Your task to perform on an android device: toggle notifications settings in the gmail app Image 0: 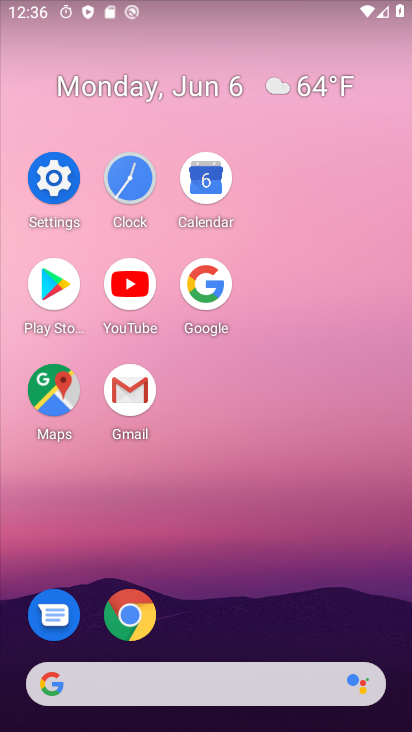
Step 0: click (129, 382)
Your task to perform on an android device: toggle notifications settings in the gmail app Image 1: 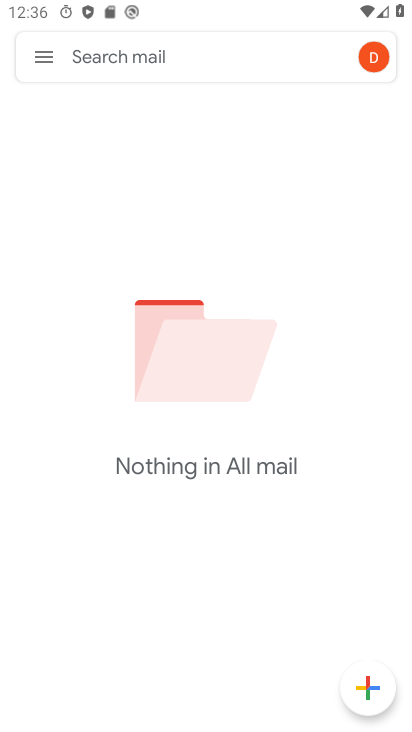
Step 1: click (33, 51)
Your task to perform on an android device: toggle notifications settings in the gmail app Image 2: 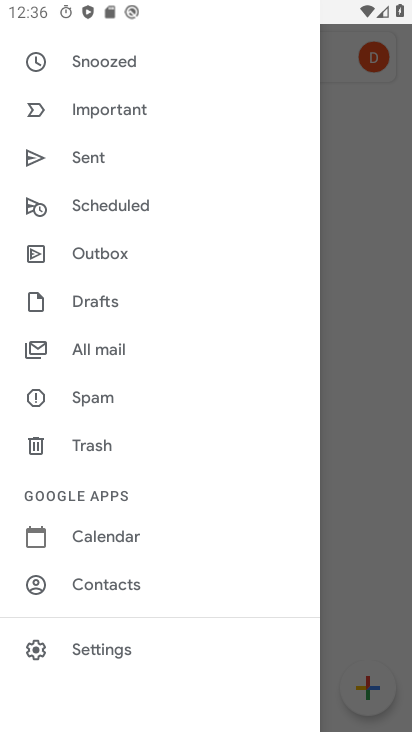
Step 2: click (110, 632)
Your task to perform on an android device: toggle notifications settings in the gmail app Image 3: 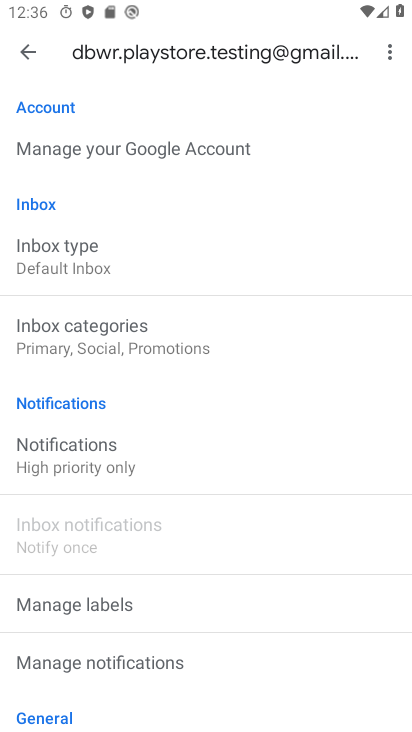
Step 3: click (139, 446)
Your task to perform on an android device: toggle notifications settings in the gmail app Image 4: 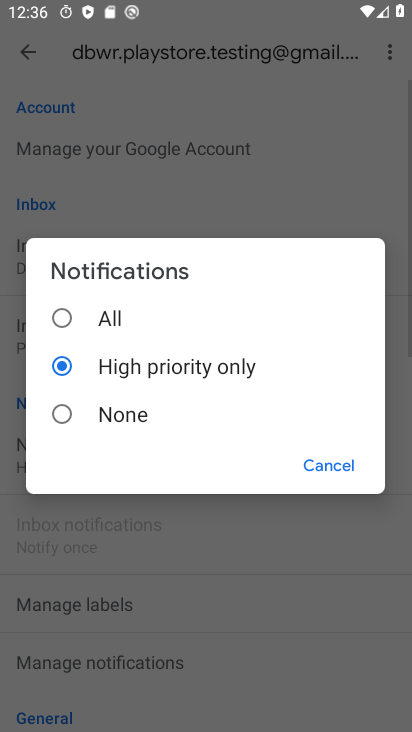
Step 4: click (113, 304)
Your task to perform on an android device: toggle notifications settings in the gmail app Image 5: 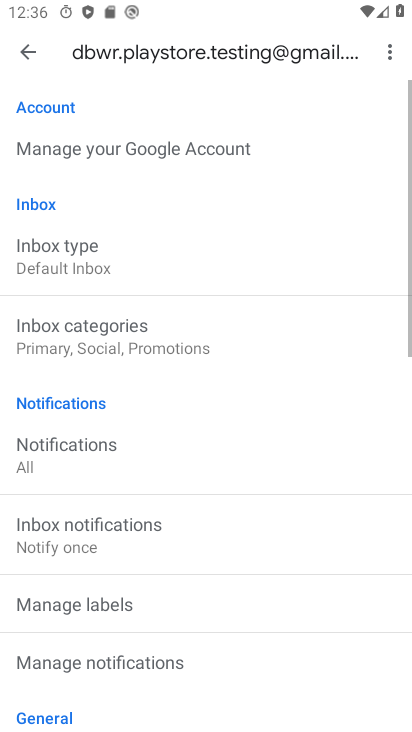
Step 5: task complete